Your task to perform on an android device: turn off airplane mode Image 0: 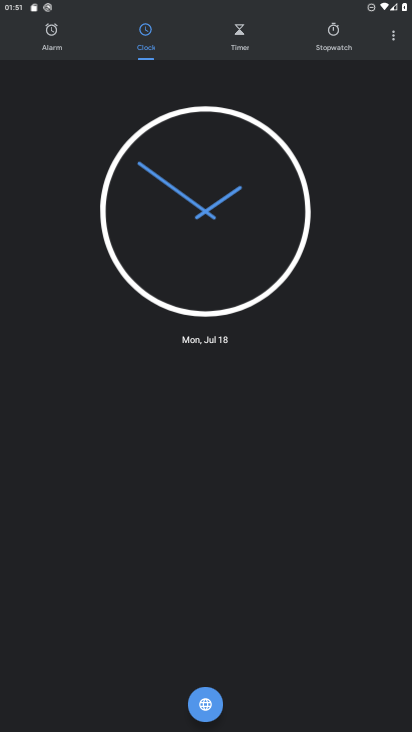
Step 0: press home button
Your task to perform on an android device: turn off airplane mode Image 1: 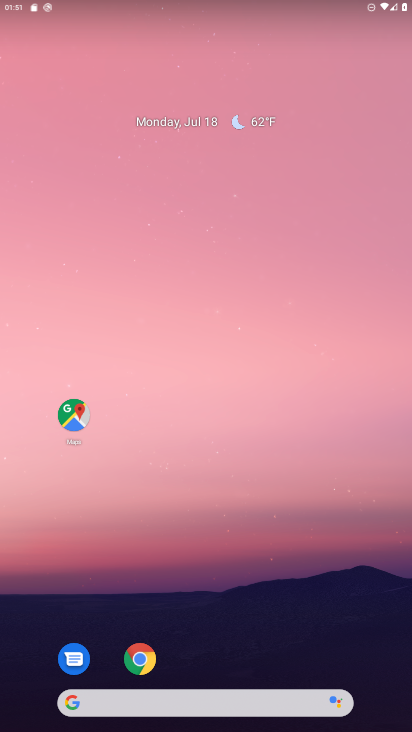
Step 1: drag from (333, 564) to (289, 116)
Your task to perform on an android device: turn off airplane mode Image 2: 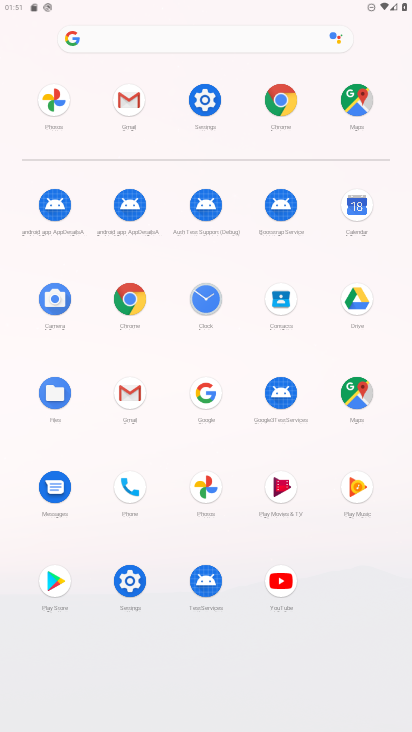
Step 2: click (204, 95)
Your task to perform on an android device: turn off airplane mode Image 3: 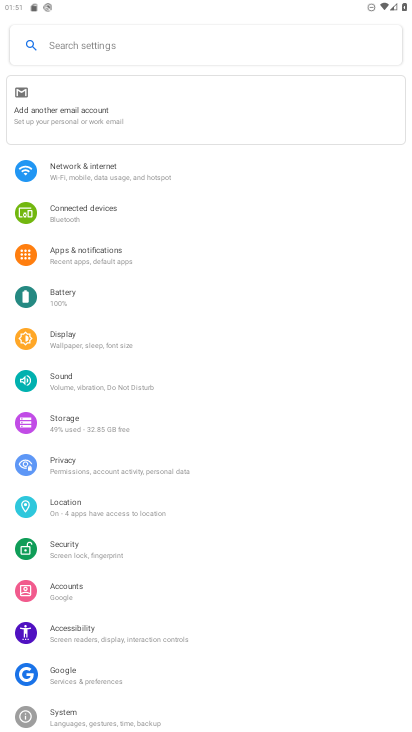
Step 3: click (130, 180)
Your task to perform on an android device: turn off airplane mode Image 4: 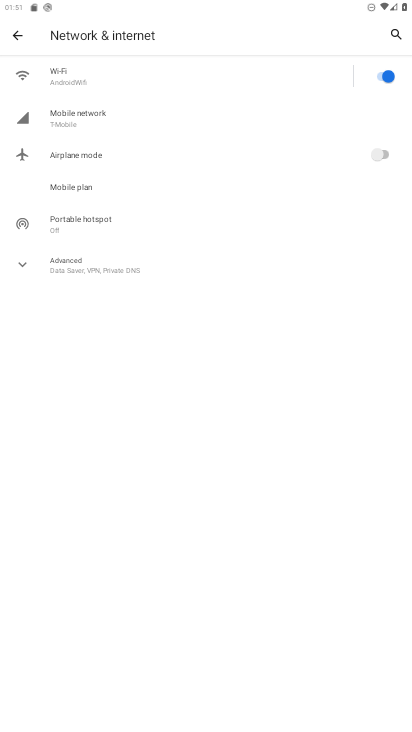
Step 4: task complete